Your task to perform on an android device: toggle show notifications on the lock screen Image 0: 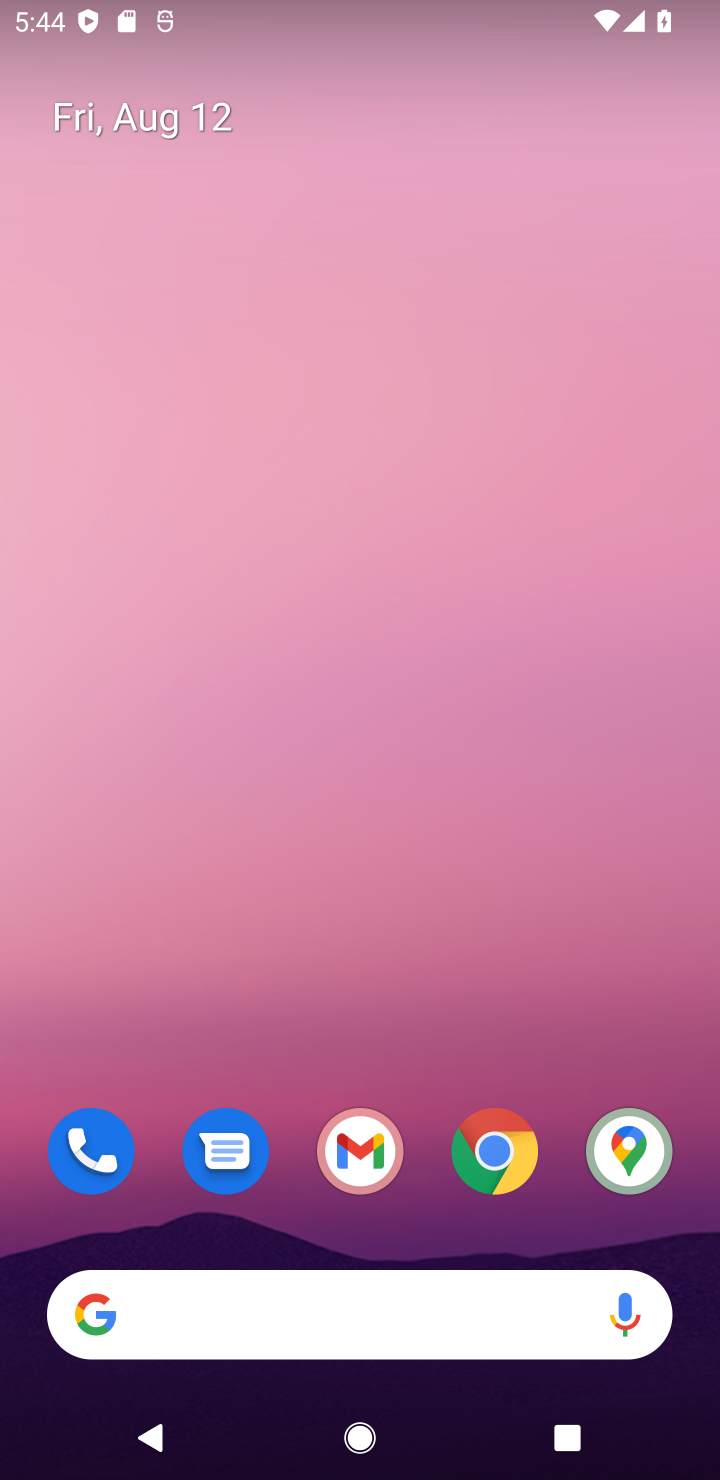
Step 0: drag from (442, 1215) to (517, 202)
Your task to perform on an android device: toggle show notifications on the lock screen Image 1: 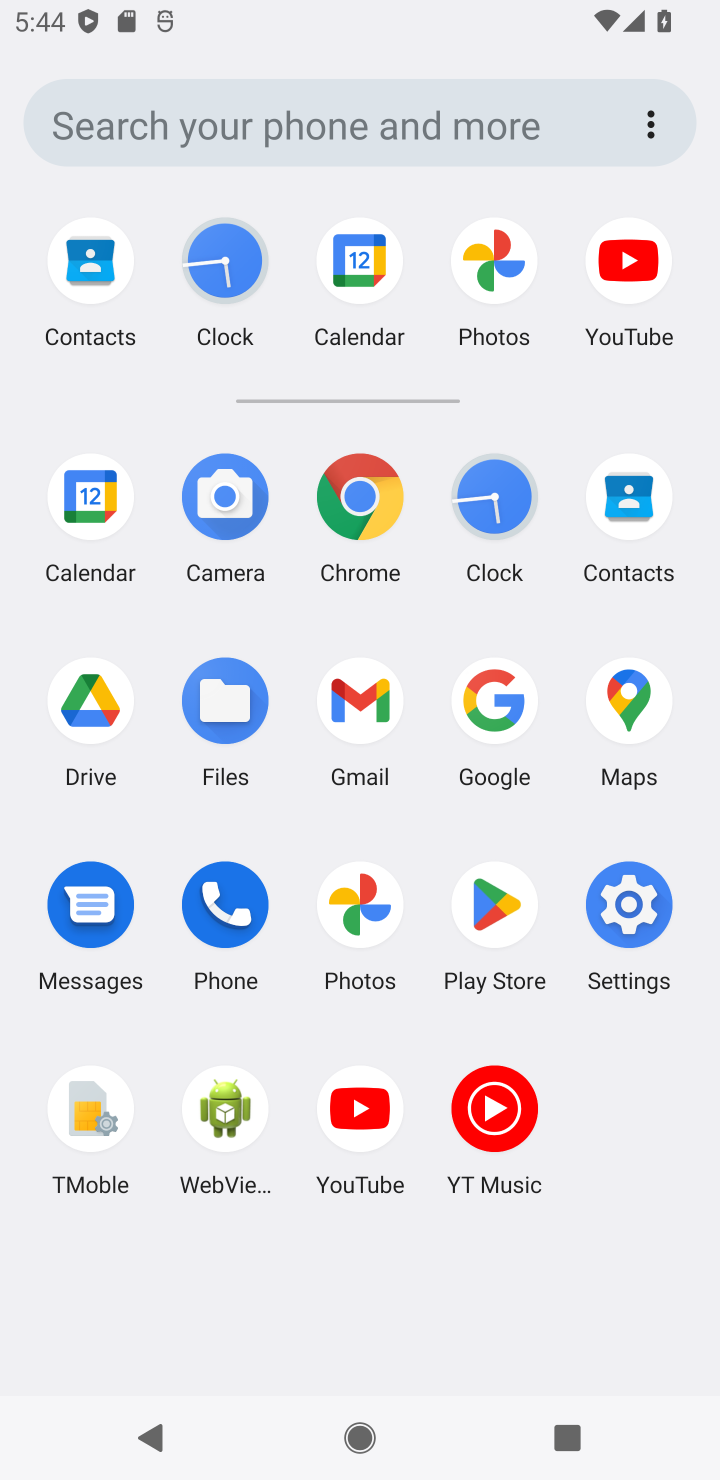
Step 1: click (615, 894)
Your task to perform on an android device: toggle show notifications on the lock screen Image 2: 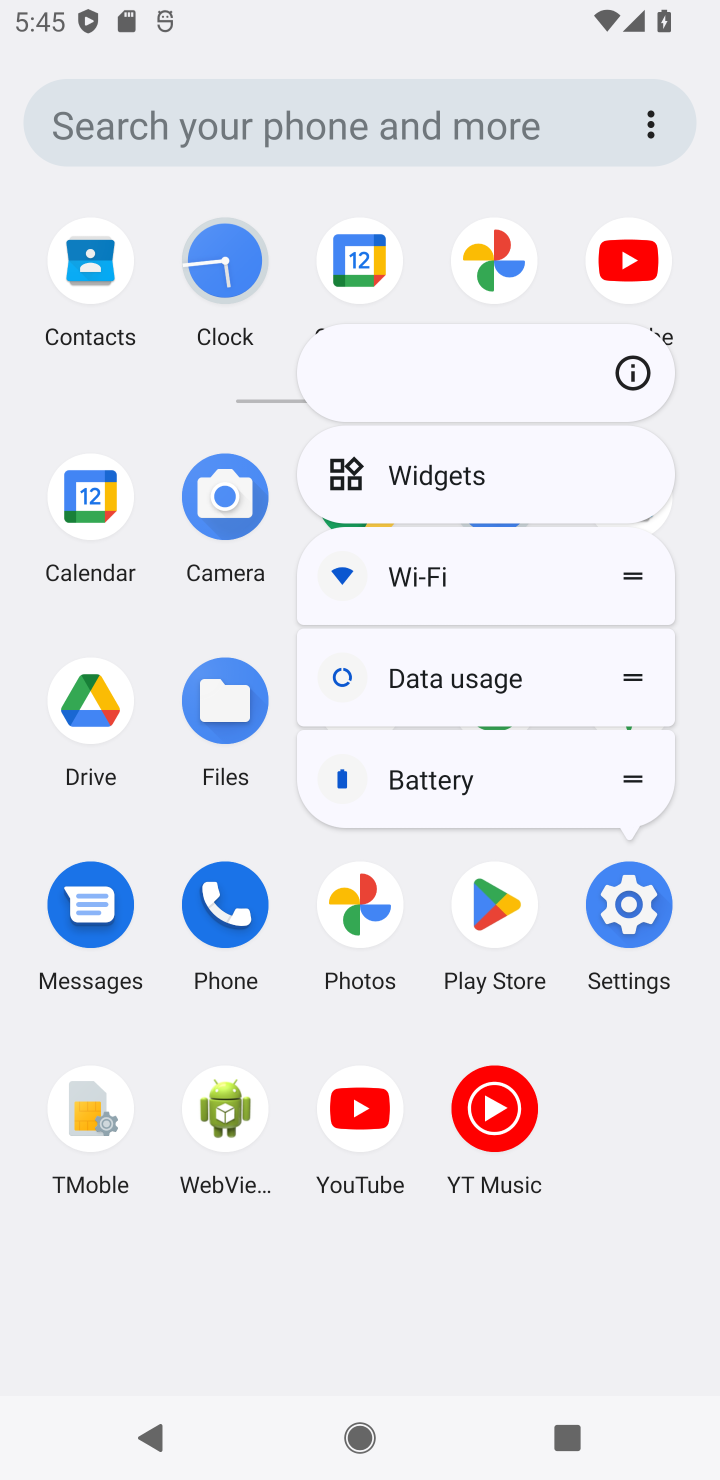
Step 2: click (615, 894)
Your task to perform on an android device: toggle show notifications on the lock screen Image 3: 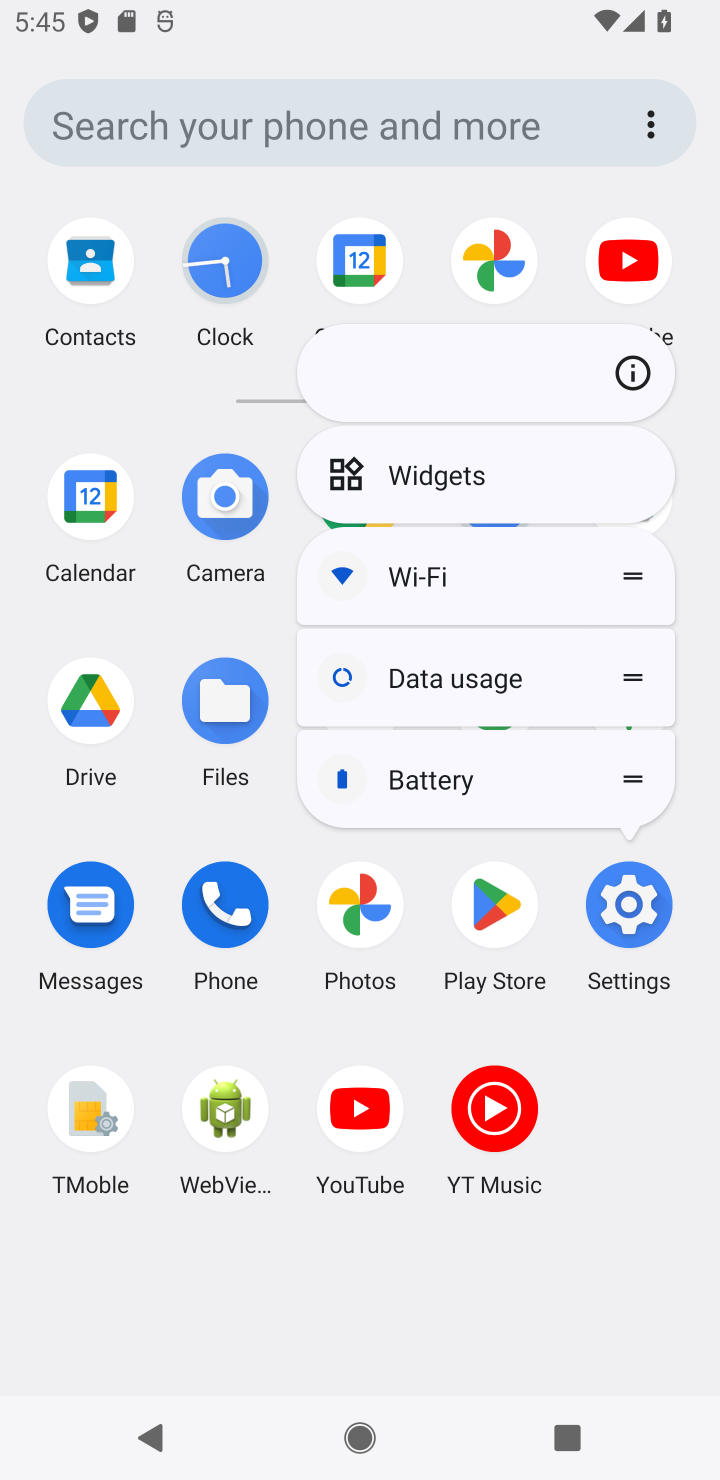
Step 3: click (636, 907)
Your task to perform on an android device: toggle show notifications on the lock screen Image 4: 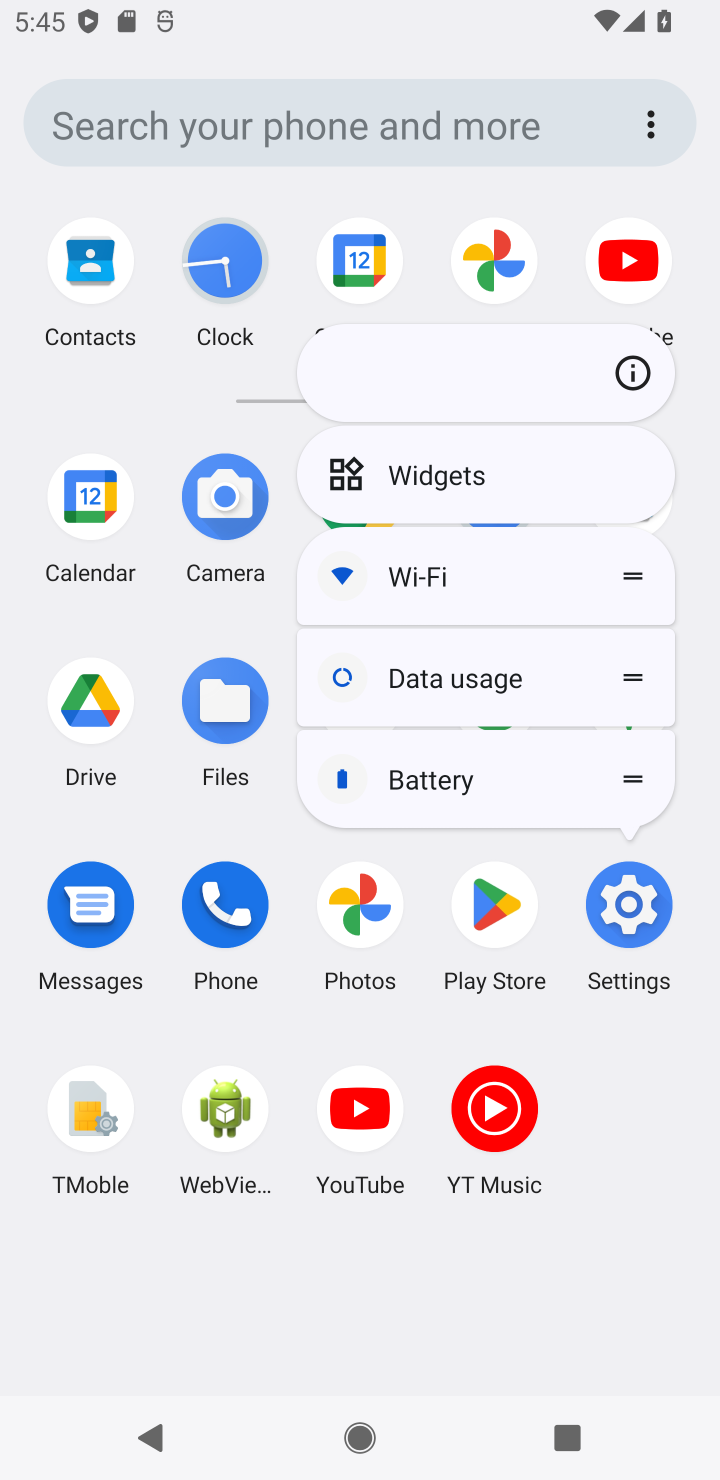
Step 4: click (636, 889)
Your task to perform on an android device: toggle show notifications on the lock screen Image 5: 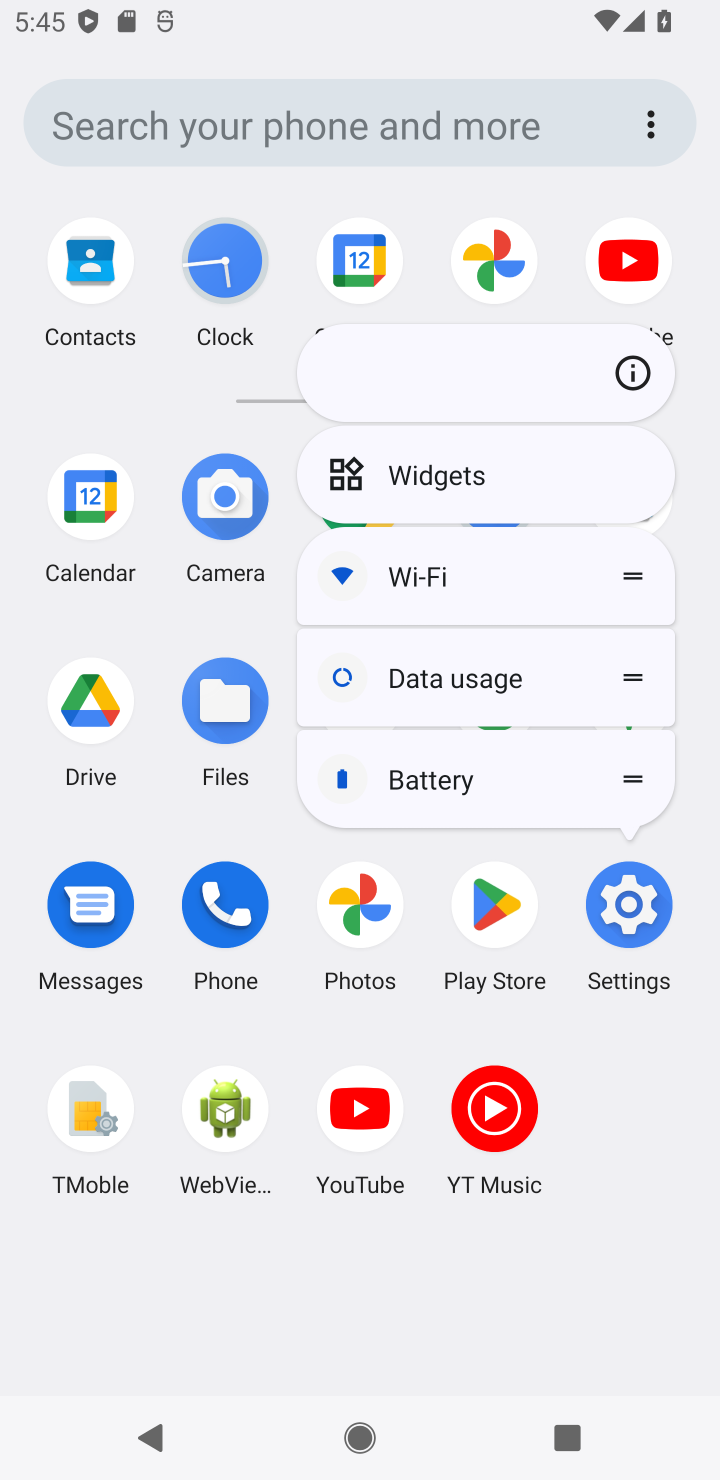
Step 5: click (565, 1128)
Your task to perform on an android device: toggle show notifications on the lock screen Image 6: 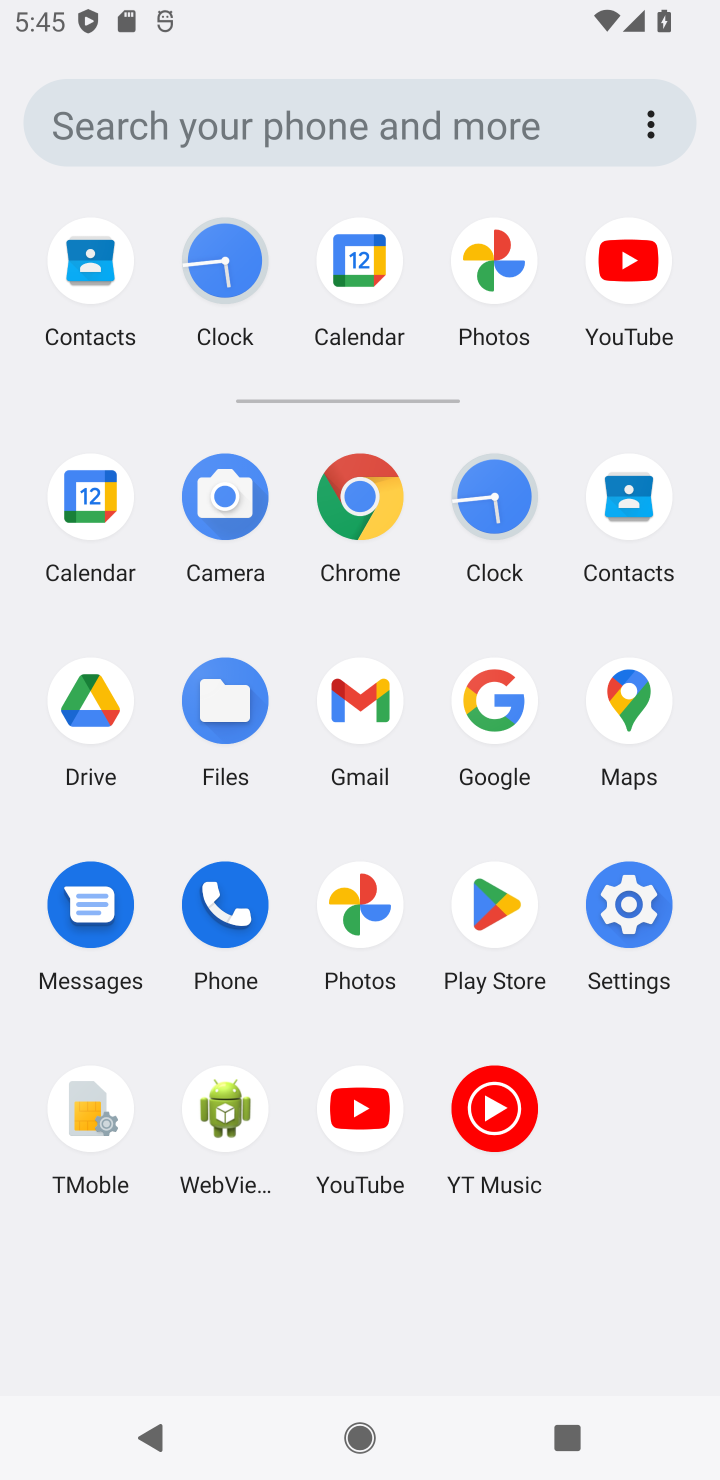
Step 6: click (623, 906)
Your task to perform on an android device: toggle show notifications on the lock screen Image 7: 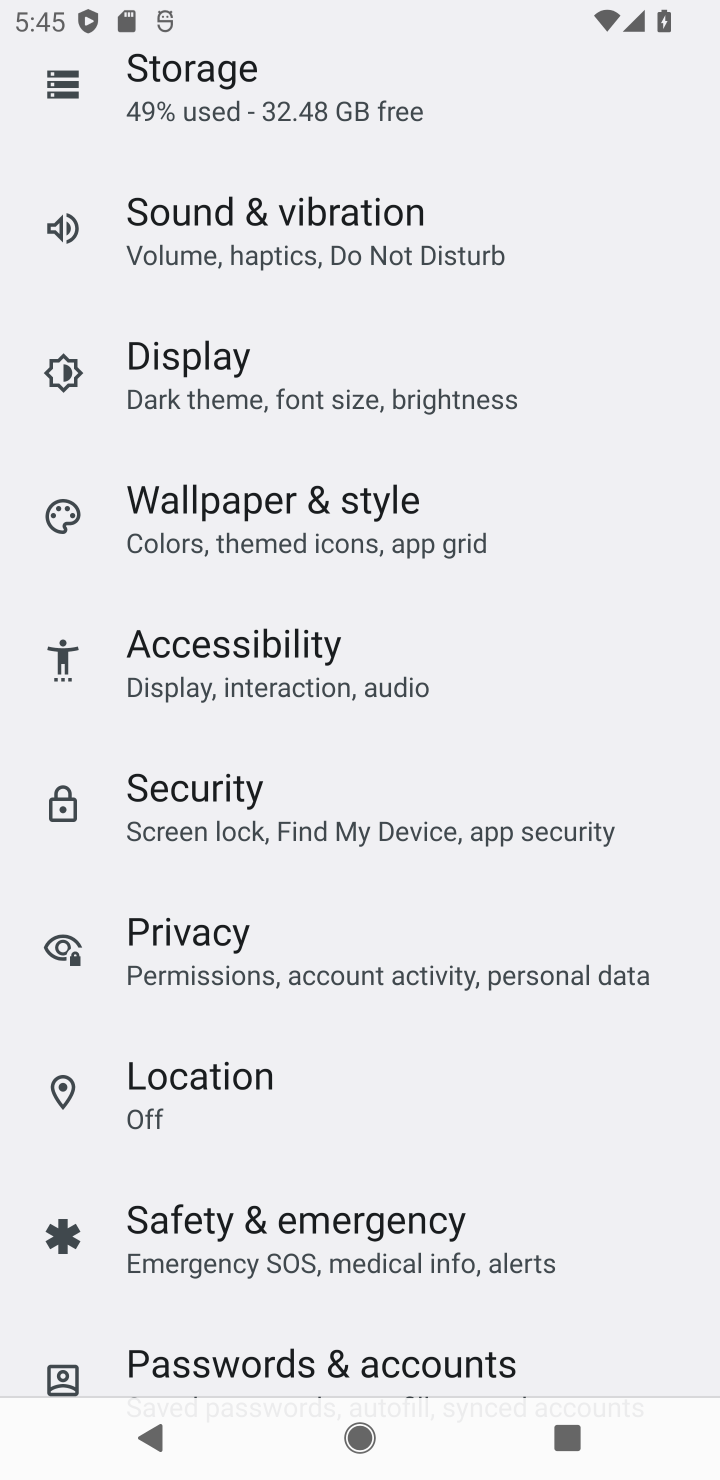
Step 7: drag from (679, 301) to (425, 1215)
Your task to perform on an android device: toggle show notifications on the lock screen Image 8: 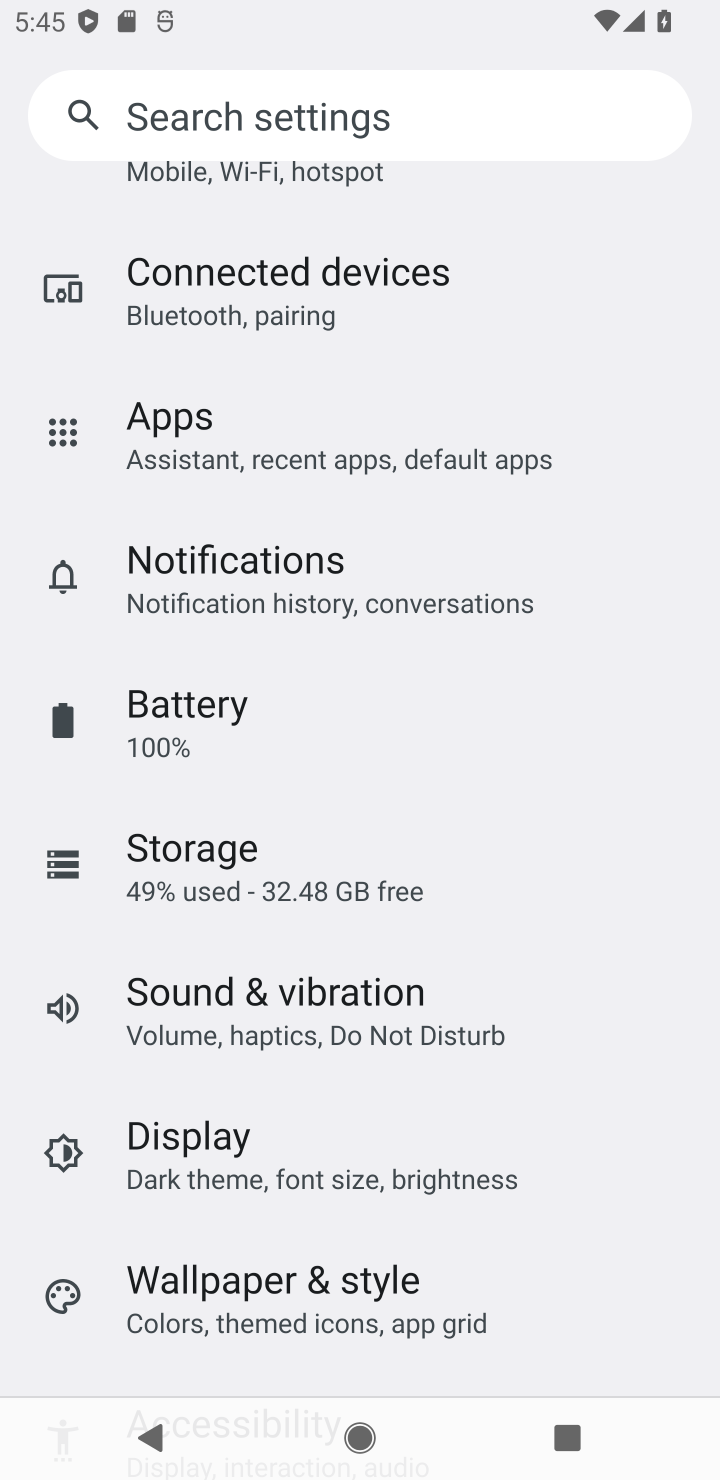
Step 8: click (214, 554)
Your task to perform on an android device: toggle show notifications on the lock screen Image 9: 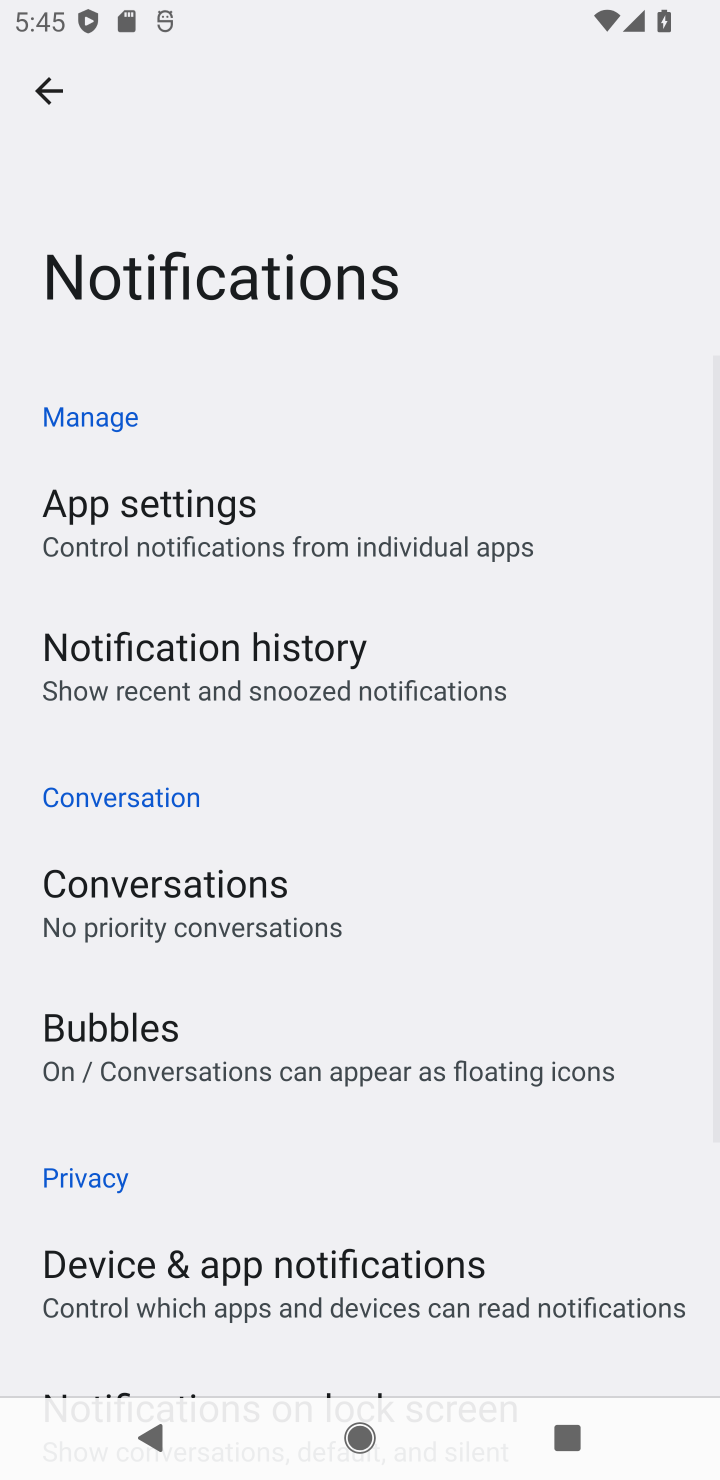
Step 9: drag from (513, 940) to (516, 296)
Your task to perform on an android device: toggle show notifications on the lock screen Image 10: 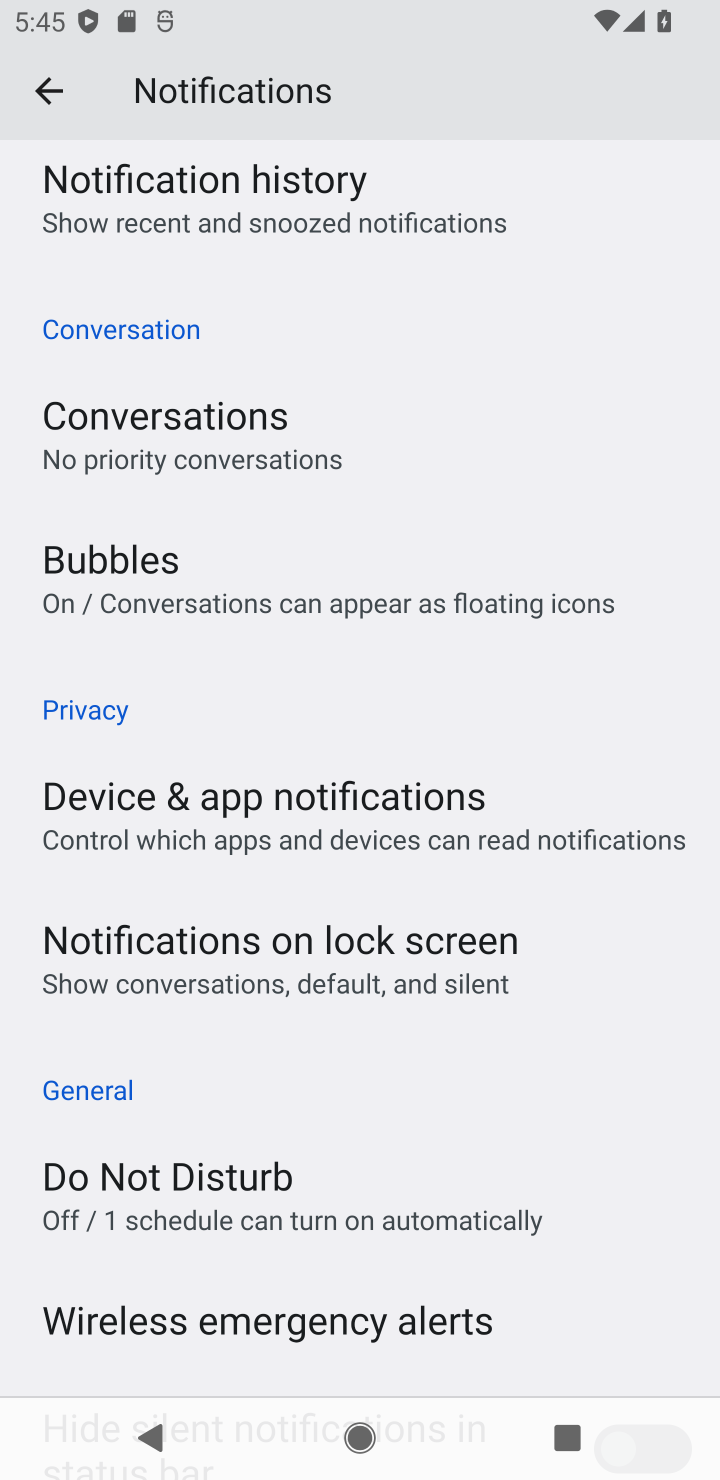
Step 10: click (415, 944)
Your task to perform on an android device: toggle show notifications on the lock screen Image 11: 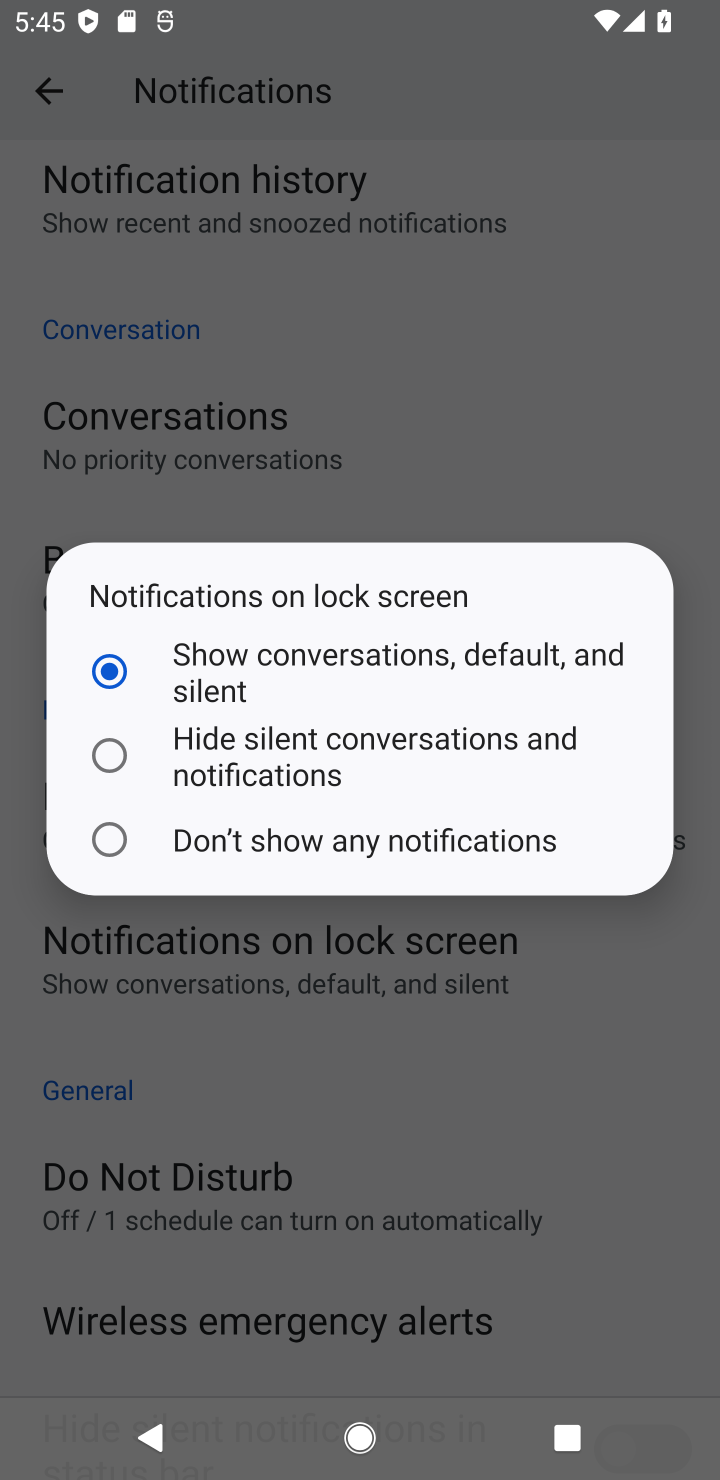
Step 11: click (272, 732)
Your task to perform on an android device: toggle show notifications on the lock screen Image 12: 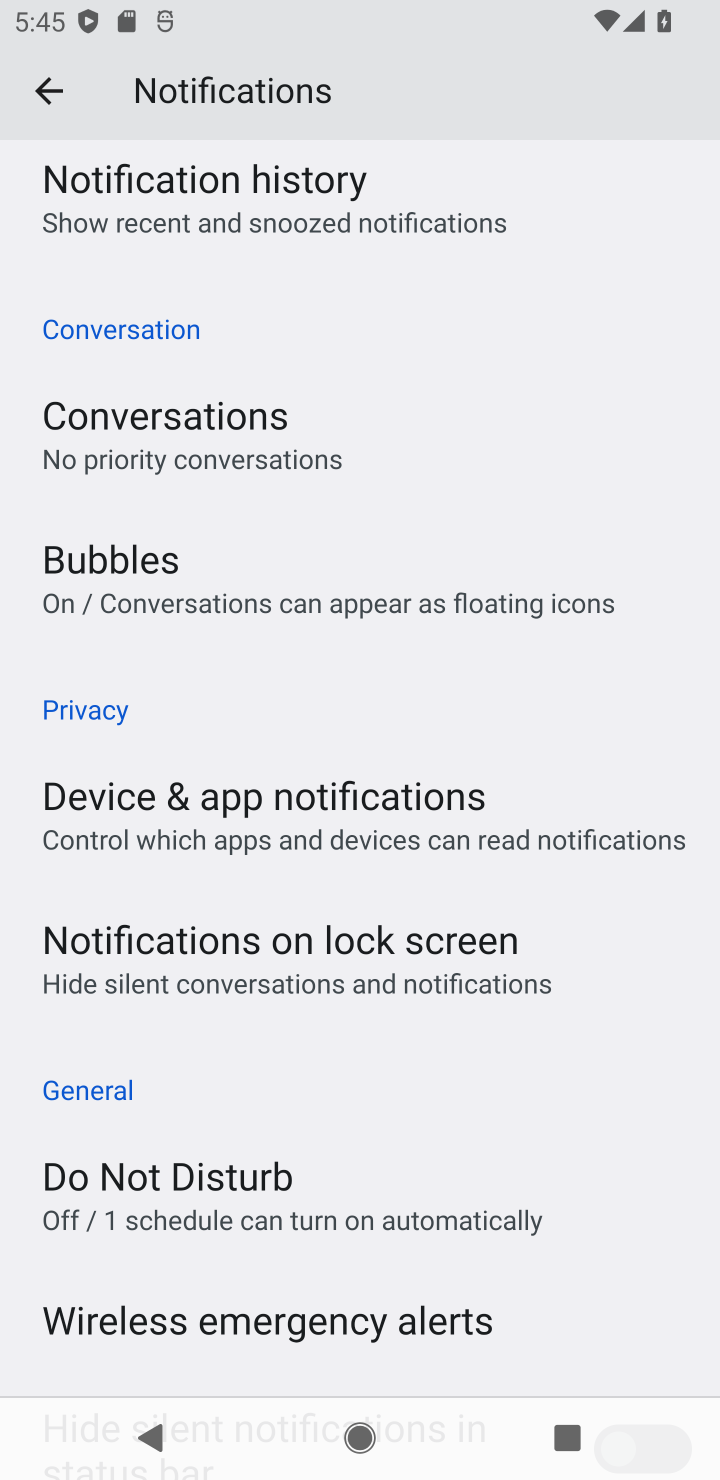
Step 12: task complete